Your task to perform on an android device: clear all cookies in the chrome app Image 0: 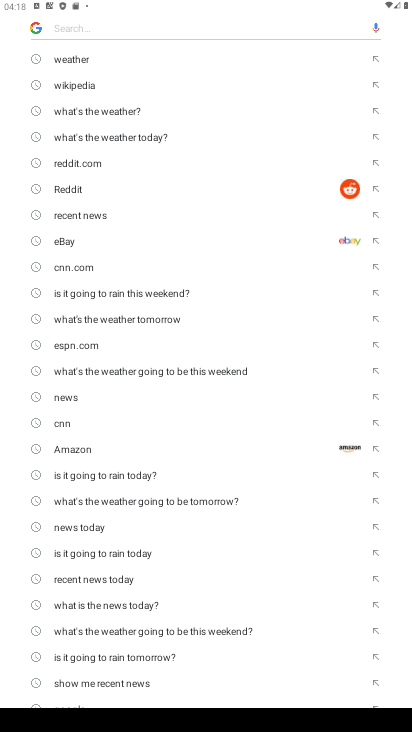
Step 0: press home button
Your task to perform on an android device: clear all cookies in the chrome app Image 1: 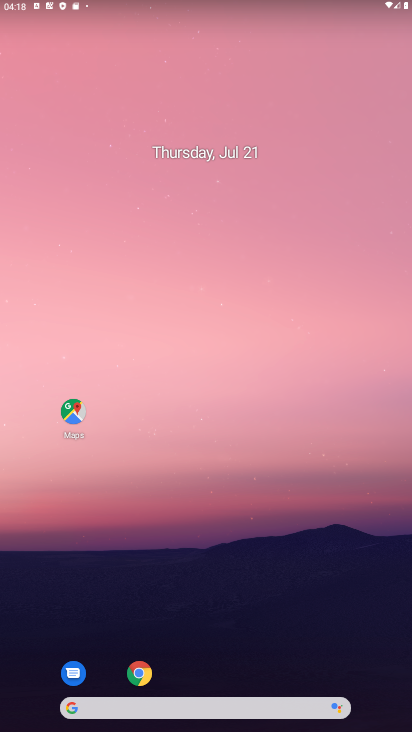
Step 1: click (140, 674)
Your task to perform on an android device: clear all cookies in the chrome app Image 2: 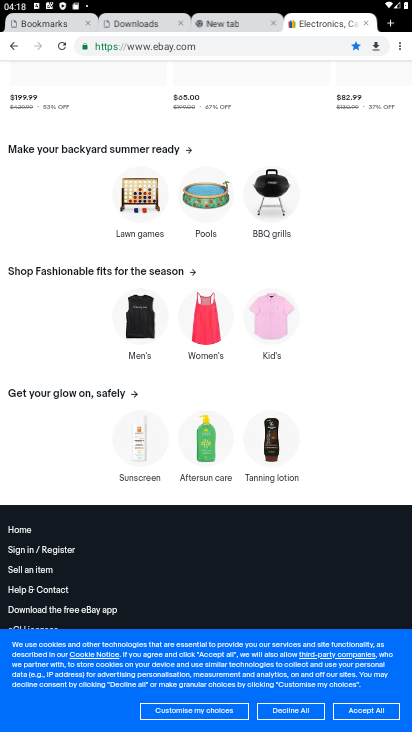
Step 2: click (400, 45)
Your task to perform on an android device: clear all cookies in the chrome app Image 3: 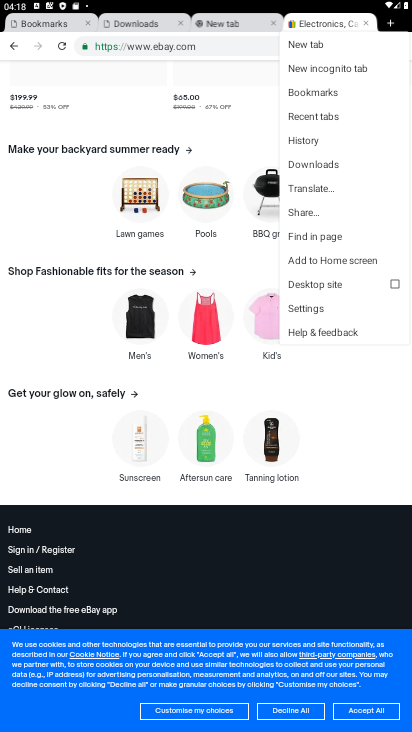
Step 3: click (301, 139)
Your task to perform on an android device: clear all cookies in the chrome app Image 4: 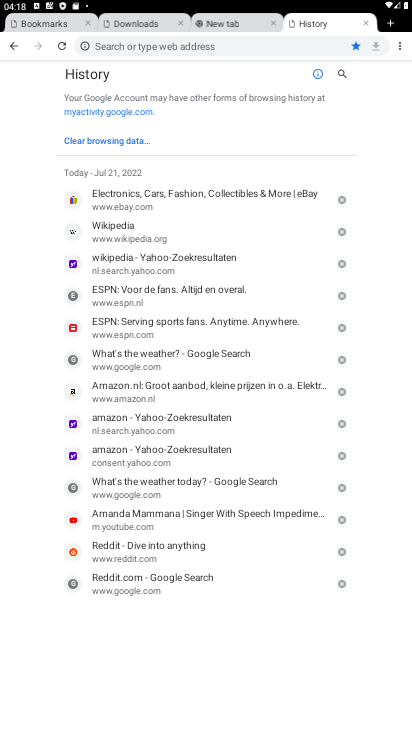
Step 4: click (100, 142)
Your task to perform on an android device: clear all cookies in the chrome app Image 5: 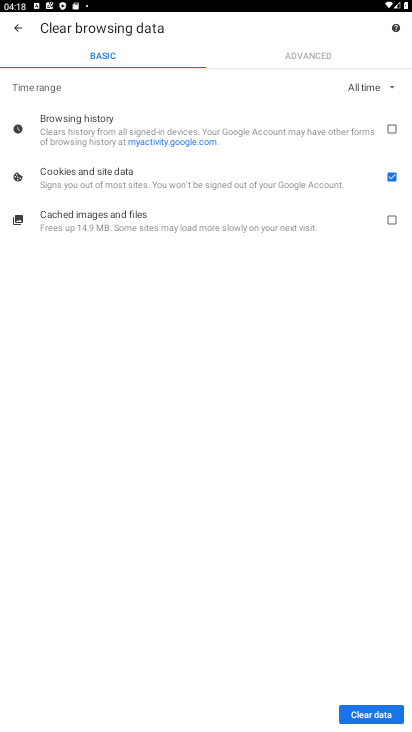
Step 5: click (364, 712)
Your task to perform on an android device: clear all cookies in the chrome app Image 6: 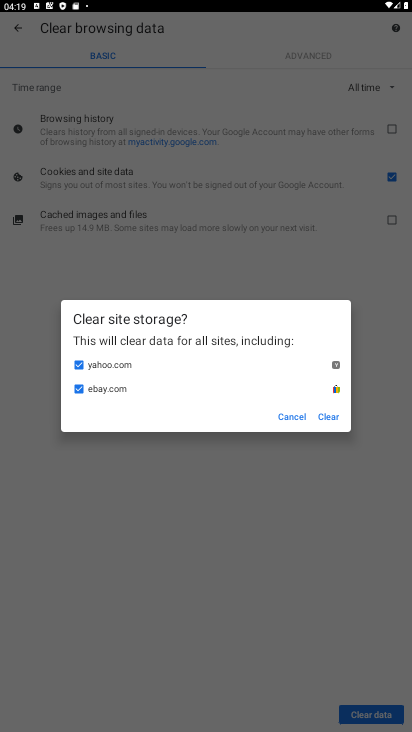
Step 6: click (329, 422)
Your task to perform on an android device: clear all cookies in the chrome app Image 7: 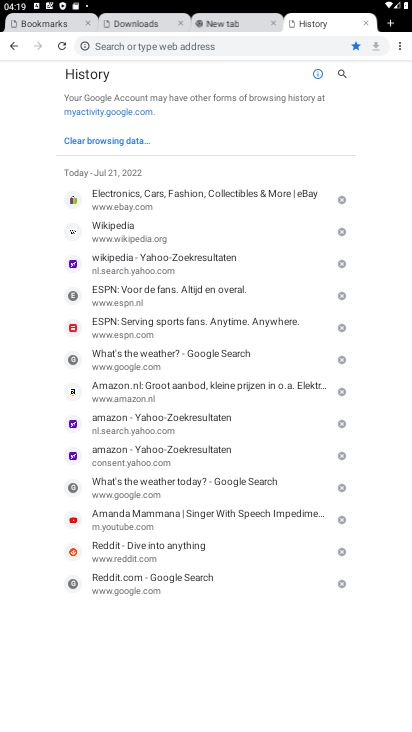
Step 7: task complete